Your task to perform on an android device: Go to accessibility settings Image 0: 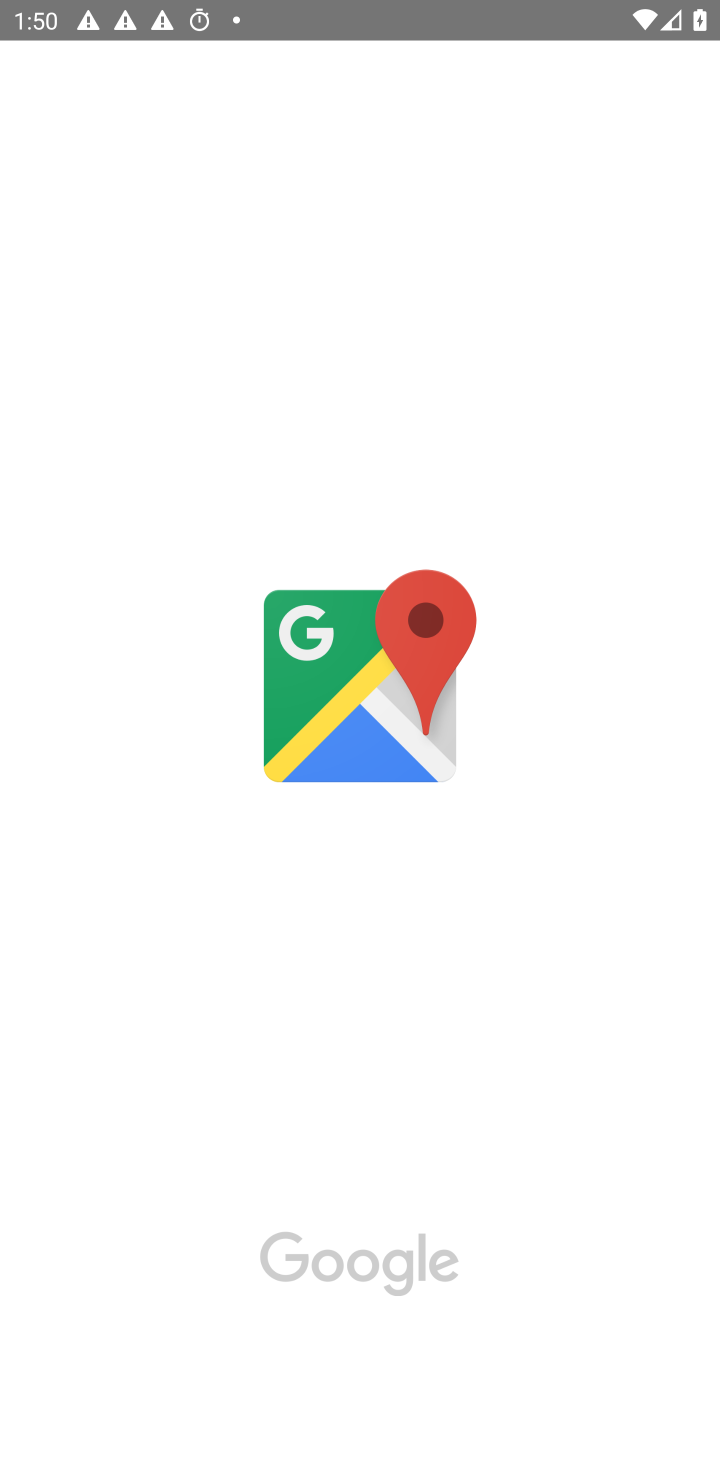
Step 0: click (436, 669)
Your task to perform on an android device: Go to accessibility settings Image 1: 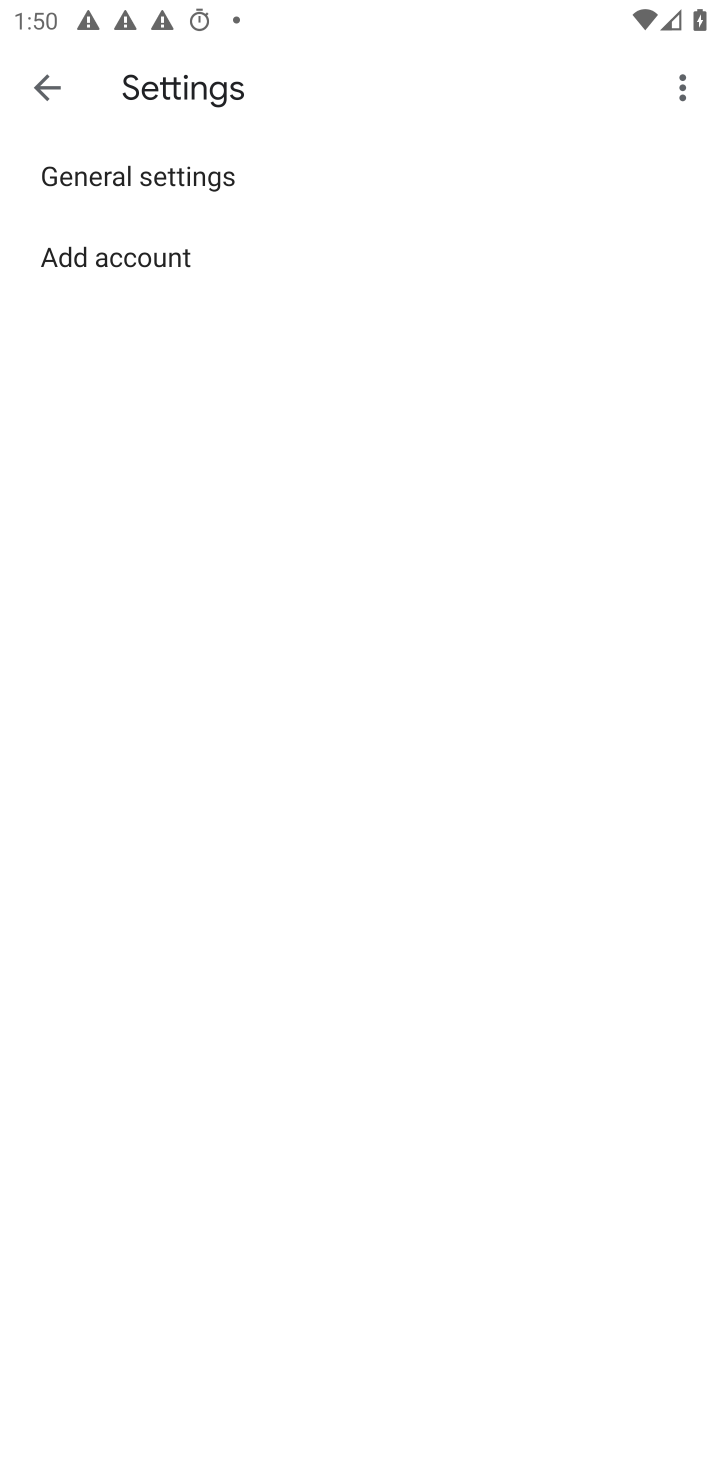
Step 1: press home button
Your task to perform on an android device: Go to accessibility settings Image 2: 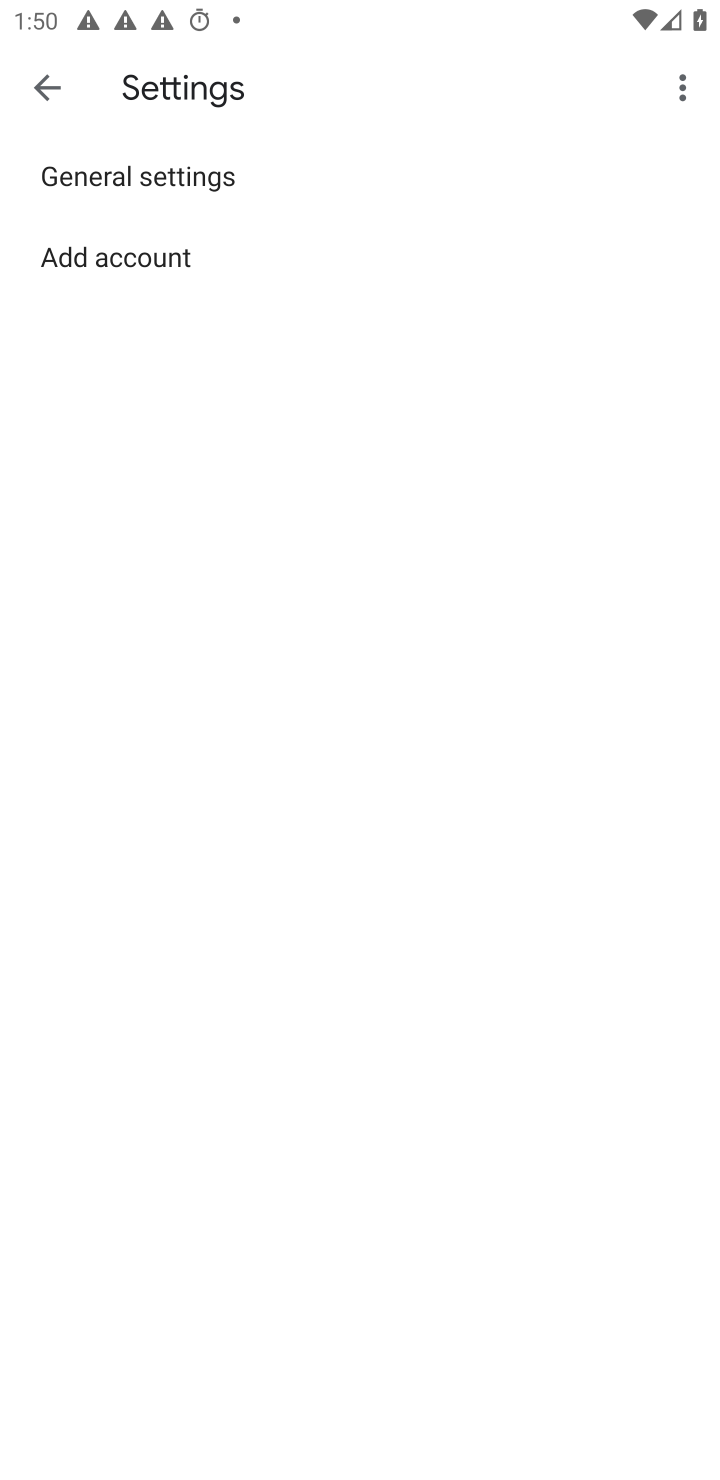
Step 2: drag from (371, 997) to (462, 307)
Your task to perform on an android device: Go to accessibility settings Image 3: 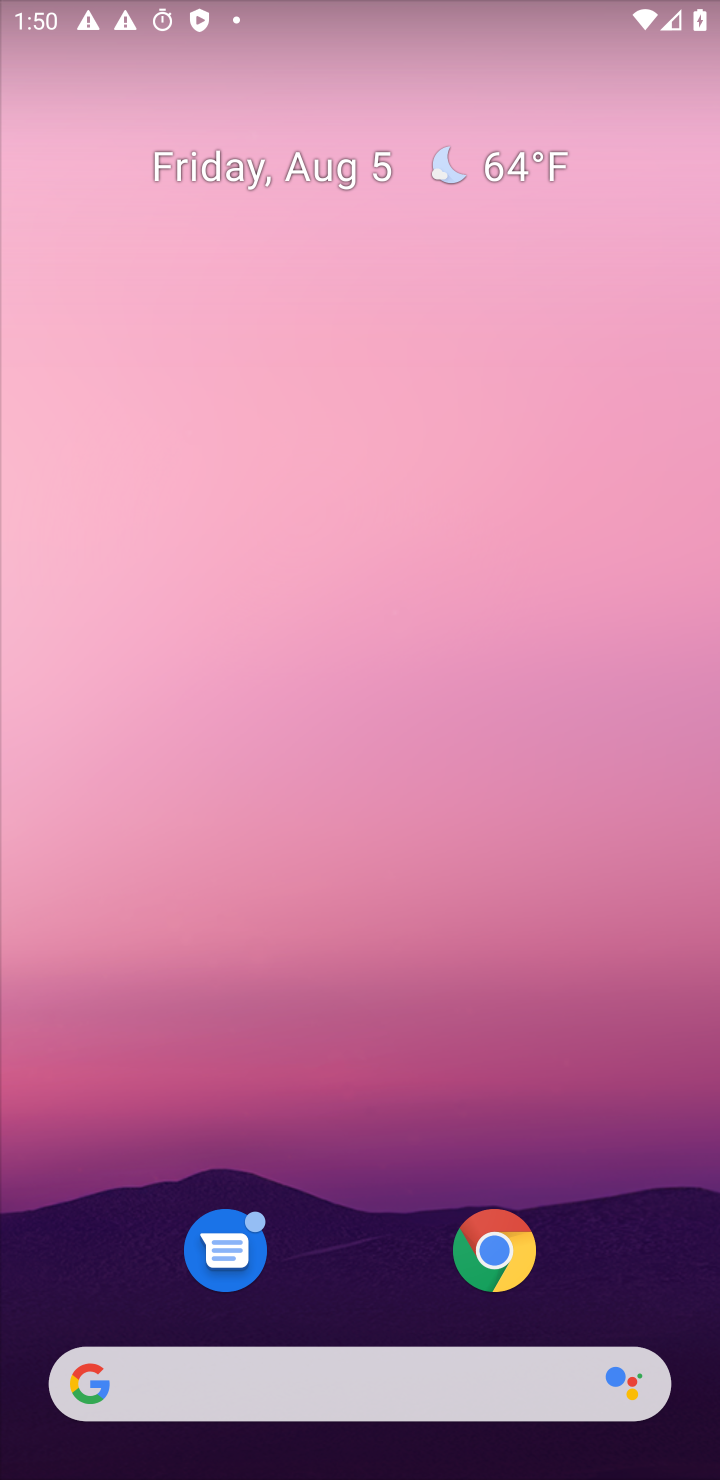
Step 3: drag from (326, 1285) to (442, 131)
Your task to perform on an android device: Go to accessibility settings Image 4: 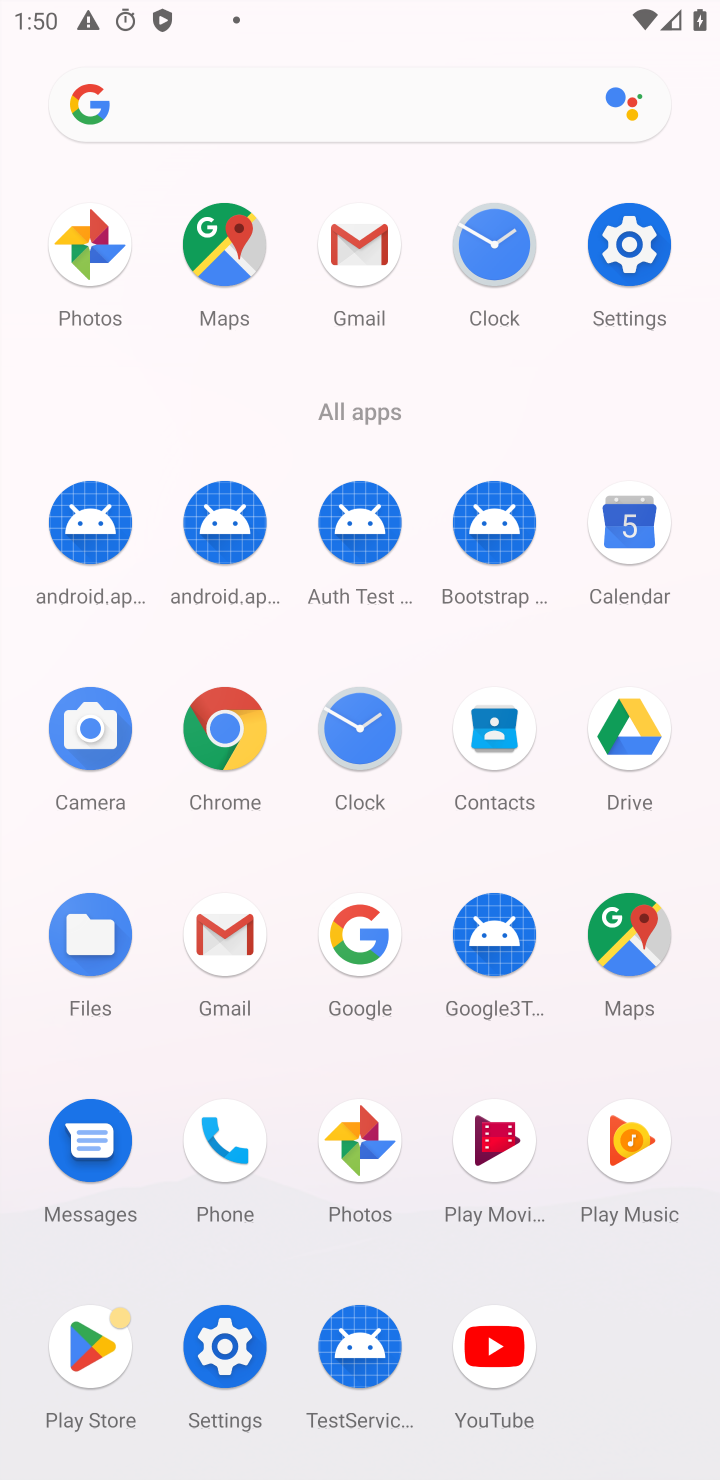
Step 4: click (627, 230)
Your task to perform on an android device: Go to accessibility settings Image 5: 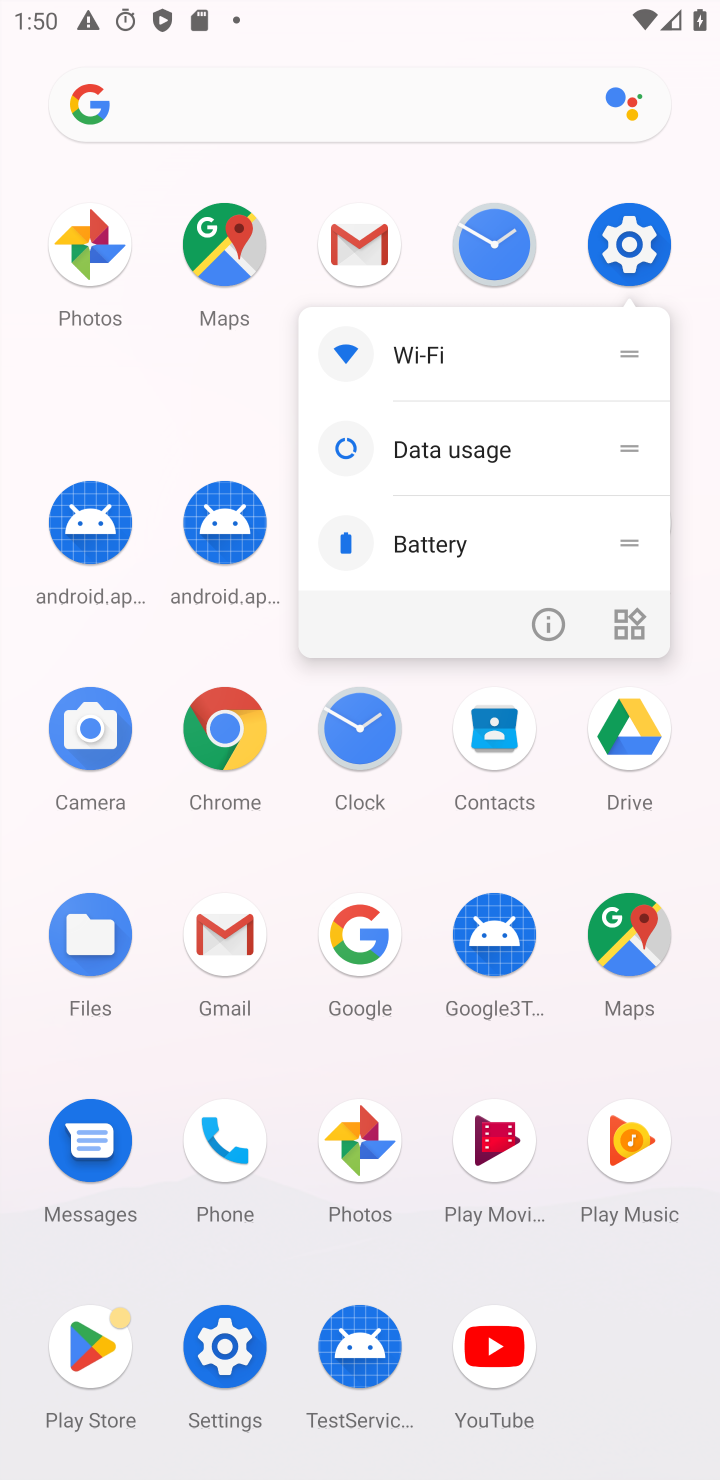
Step 5: click (548, 630)
Your task to perform on an android device: Go to accessibility settings Image 6: 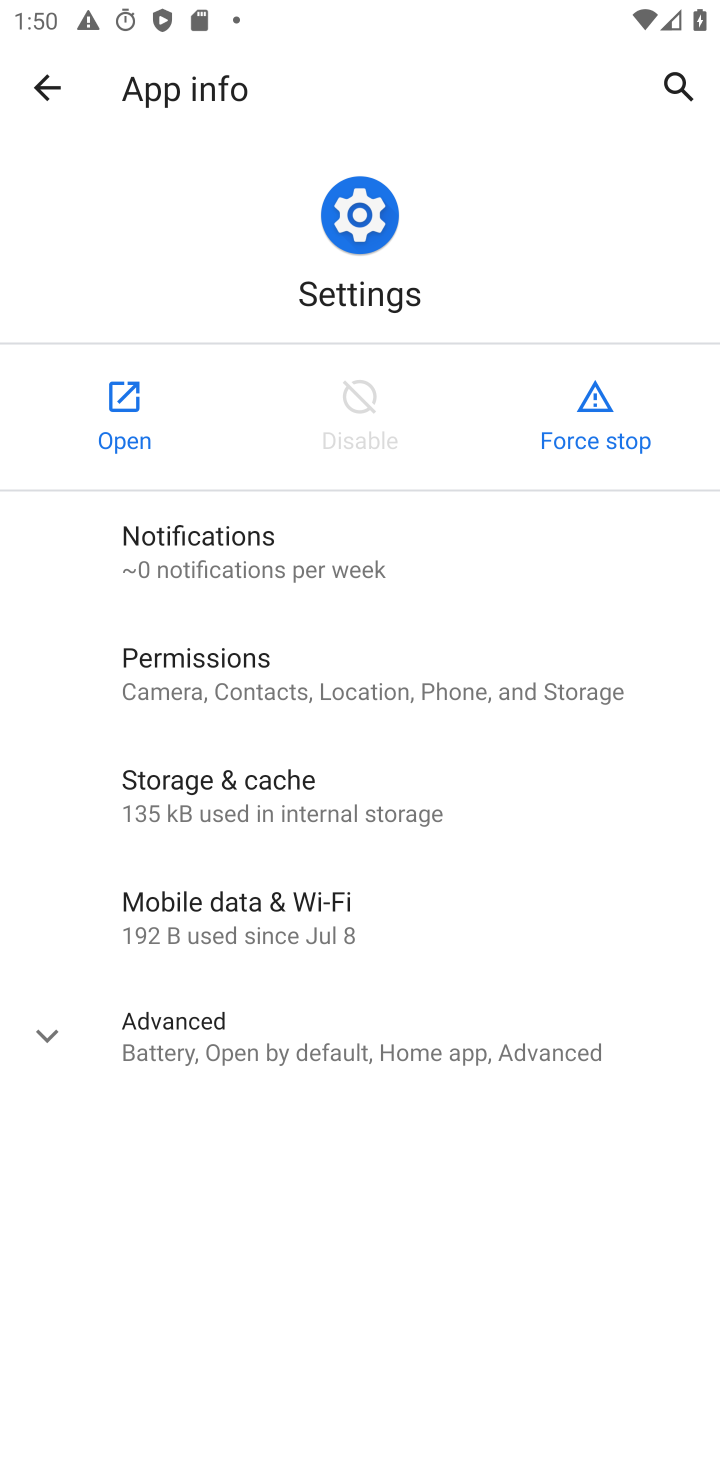
Step 6: click (104, 399)
Your task to perform on an android device: Go to accessibility settings Image 7: 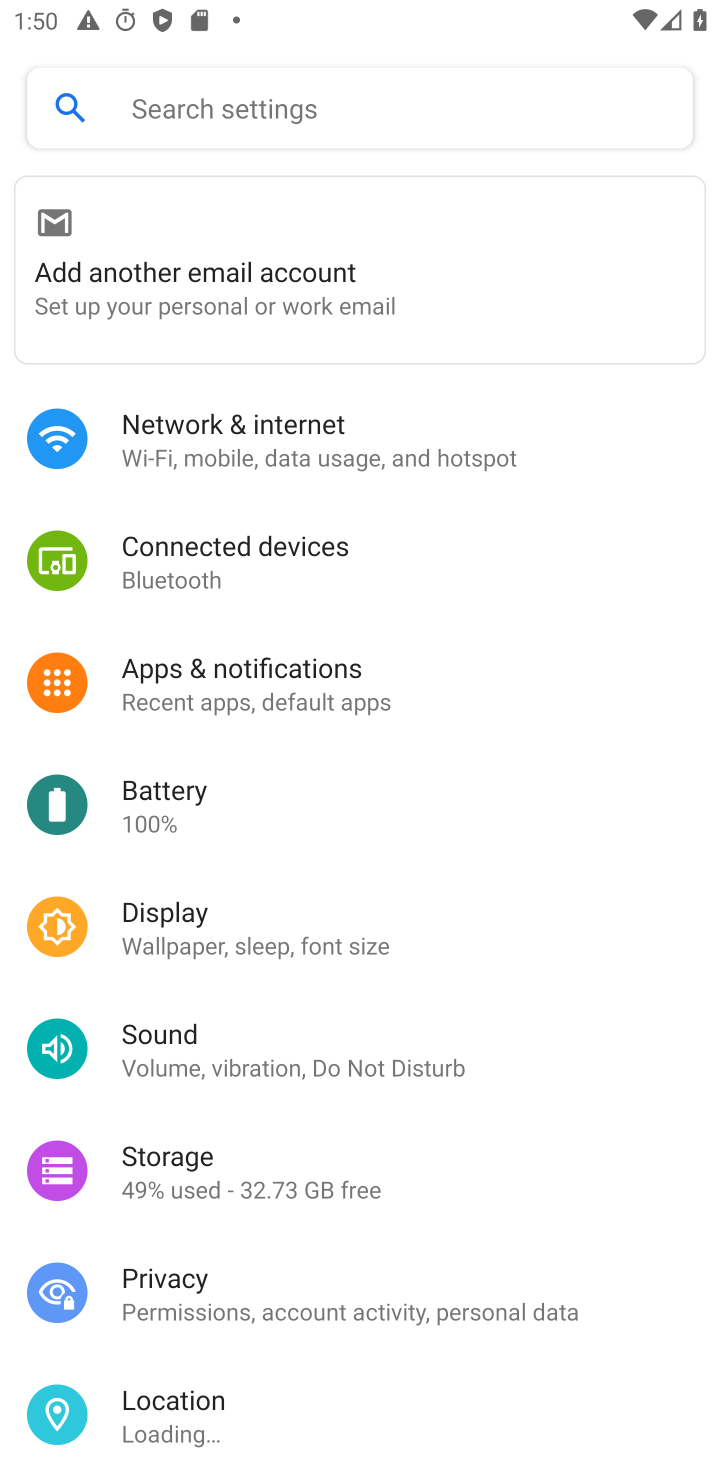
Step 7: drag from (341, 972) to (406, 380)
Your task to perform on an android device: Go to accessibility settings Image 8: 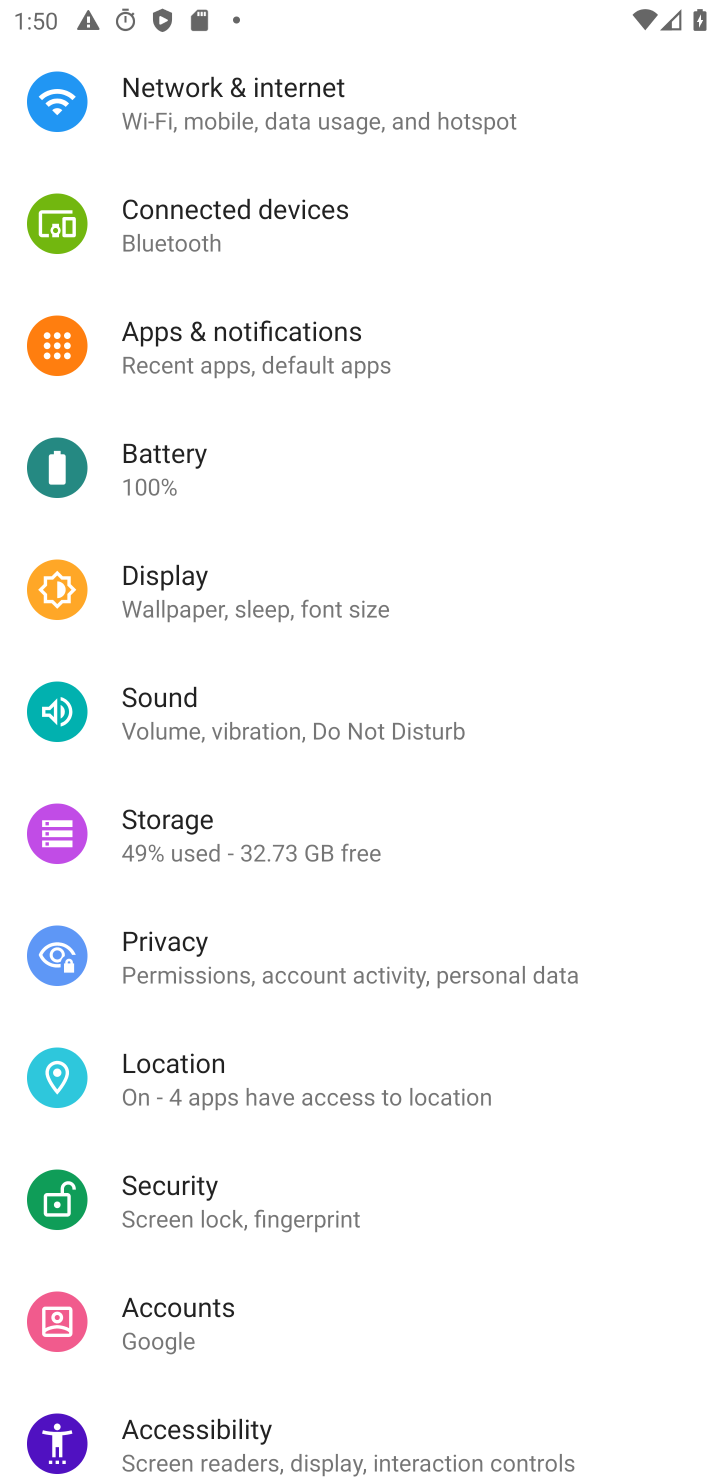
Step 8: drag from (298, 1145) to (432, 684)
Your task to perform on an android device: Go to accessibility settings Image 9: 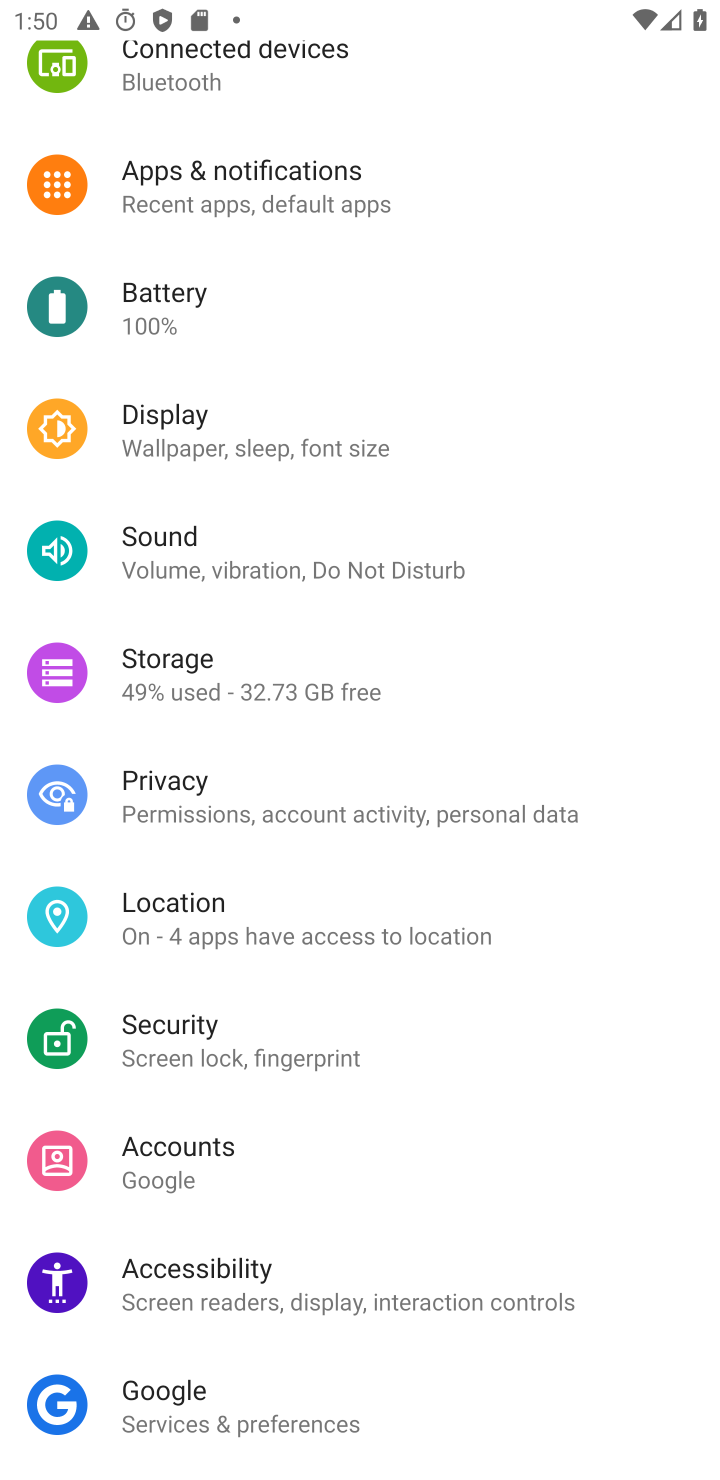
Step 9: click (226, 1298)
Your task to perform on an android device: Go to accessibility settings Image 10: 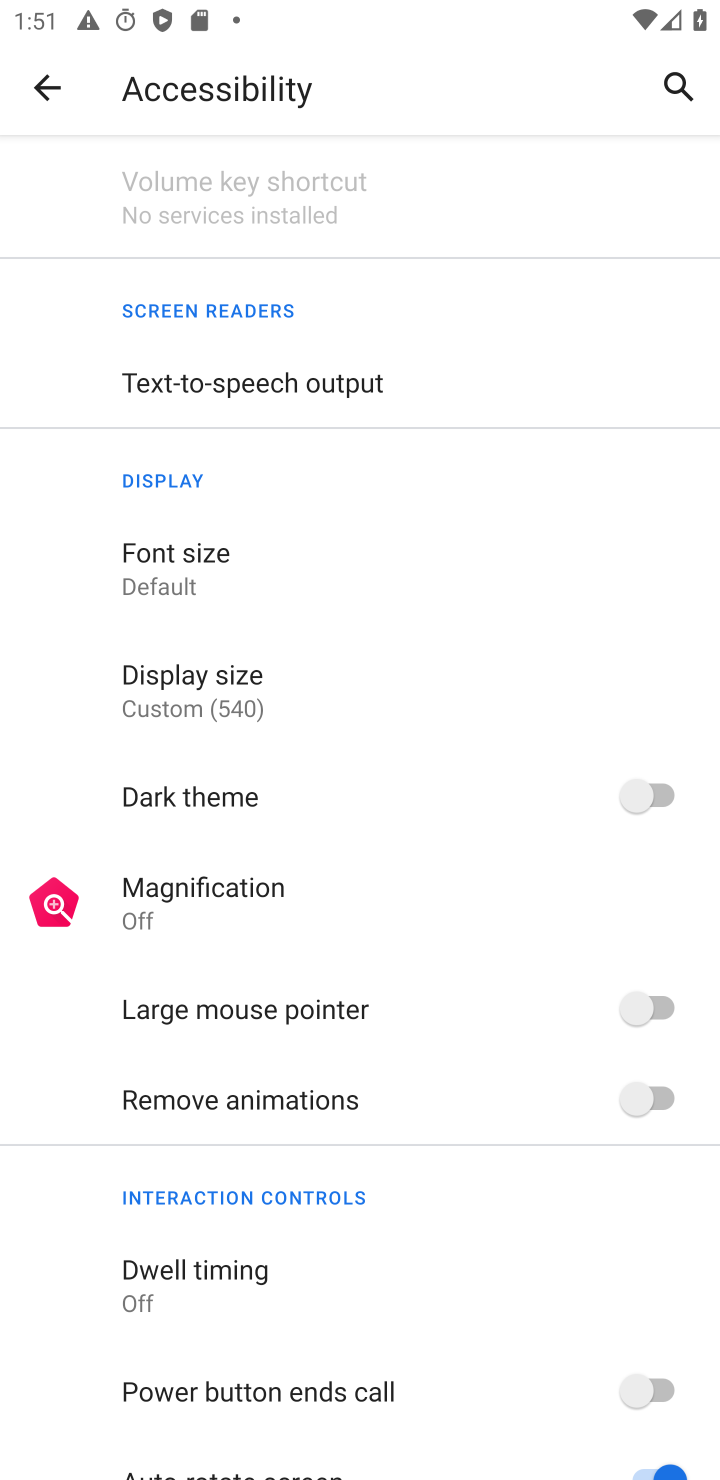
Step 10: task complete